Your task to perform on an android device: Find coffee shops on Maps Image 0: 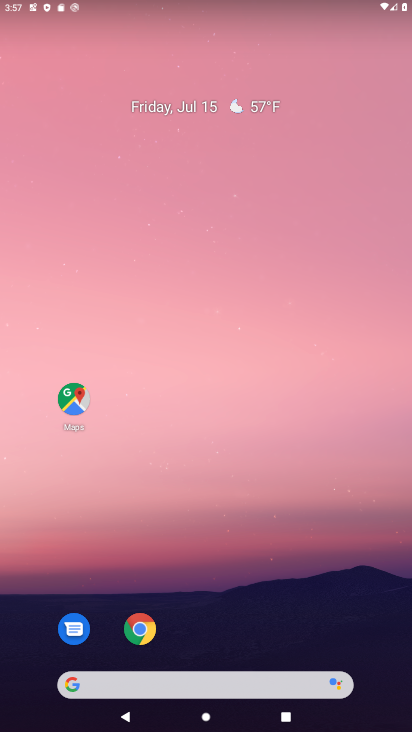
Step 0: press home button
Your task to perform on an android device: Find coffee shops on Maps Image 1: 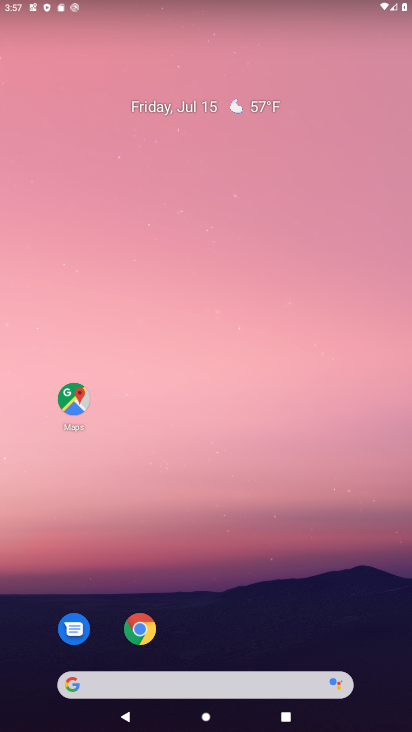
Step 1: click (80, 394)
Your task to perform on an android device: Find coffee shops on Maps Image 2: 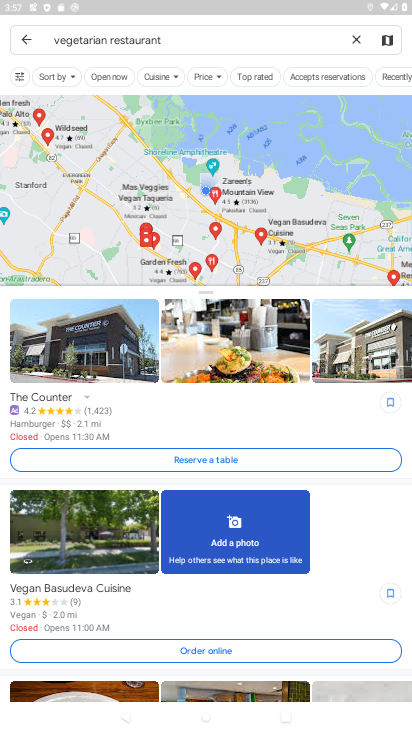
Step 2: click (355, 42)
Your task to perform on an android device: Find coffee shops on Maps Image 3: 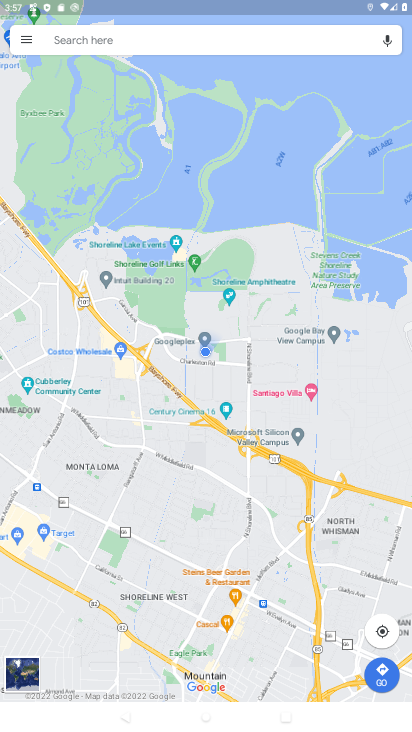
Step 3: type "coffee shops"
Your task to perform on an android device: Find coffee shops on Maps Image 4: 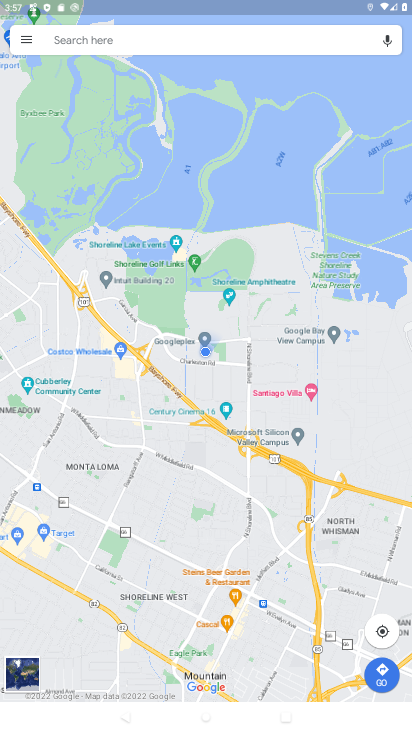
Step 4: click (79, 39)
Your task to perform on an android device: Find coffee shops on Maps Image 5: 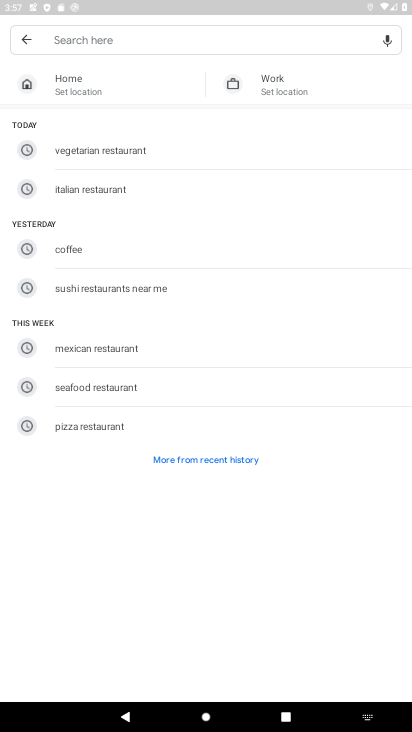
Step 5: click (115, 40)
Your task to perform on an android device: Find coffee shops on Maps Image 6: 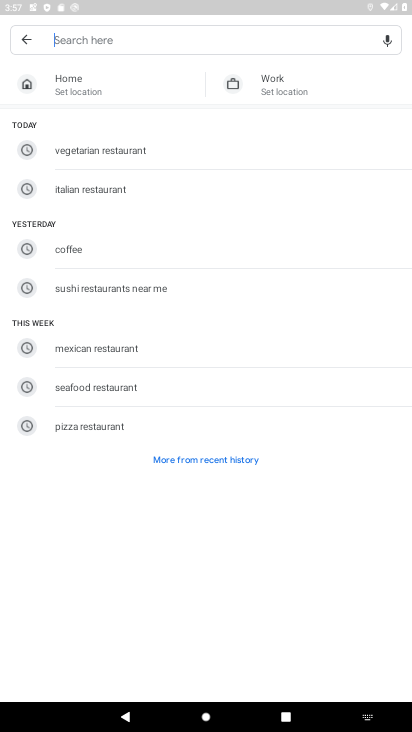
Step 6: type "coffee shops"
Your task to perform on an android device: Find coffee shops on Maps Image 7: 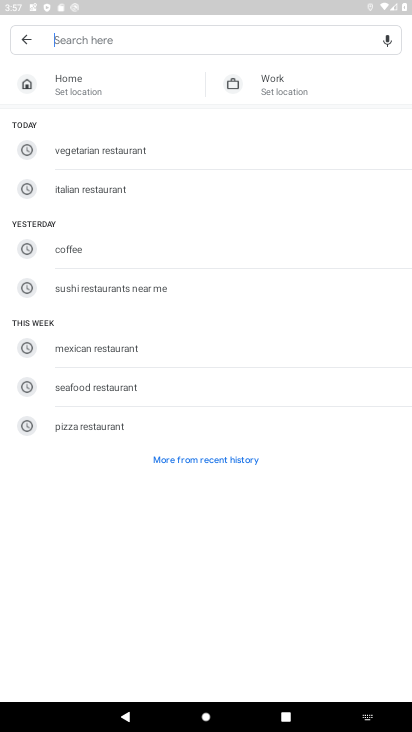
Step 7: click (90, 25)
Your task to perform on an android device: Find coffee shops on Maps Image 8: 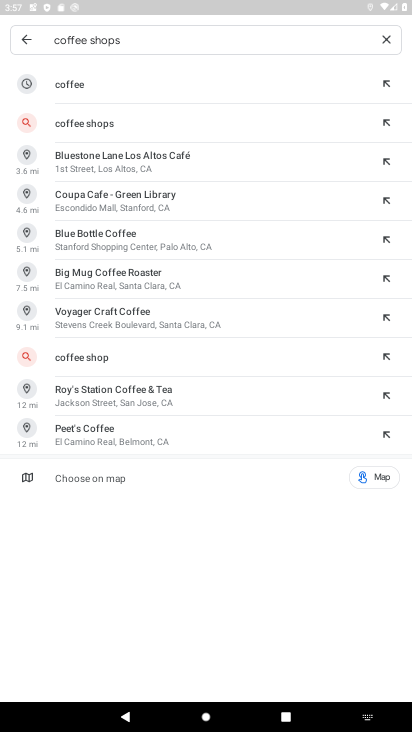
Step 8: press enter
Your task to perform on an android device: Find coffee shops on Maps Image 9: 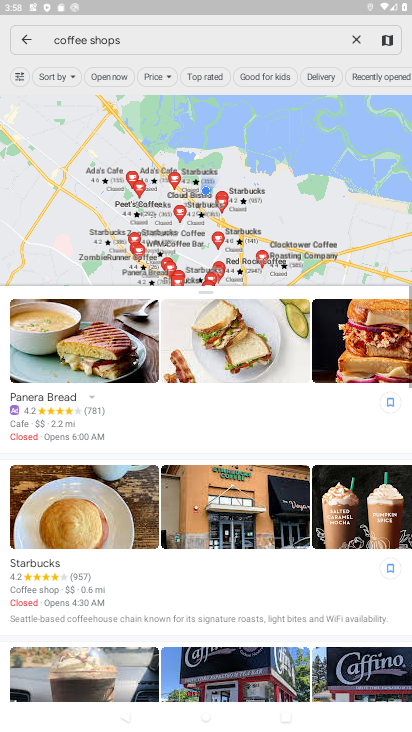
Step 9: press enter
Your task to perform on an android device: Find coffee shops on Maps Image 10: 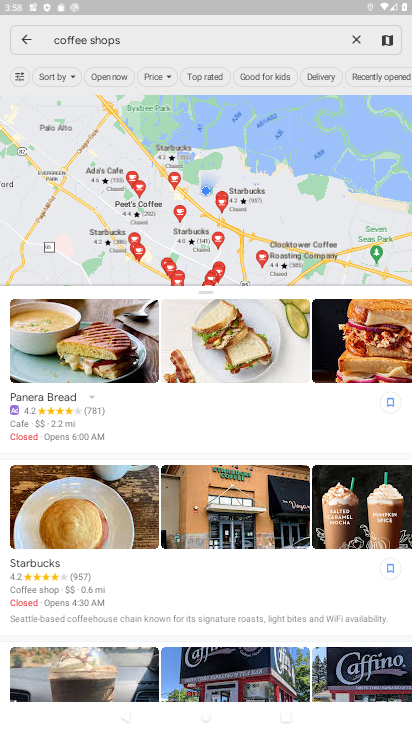
Step 10: task complete